Your task to perform on an android device: Open sound settings Image 0: 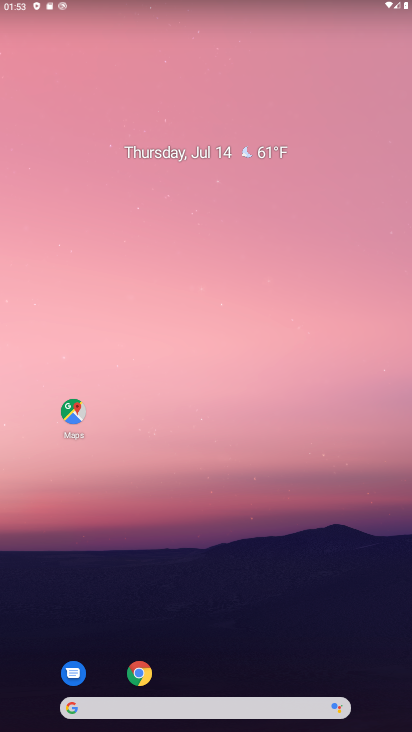
Step 0: drag from (286, 670) to (237, 65)
Your task to perform on an android device: Open sound settings Image 1: 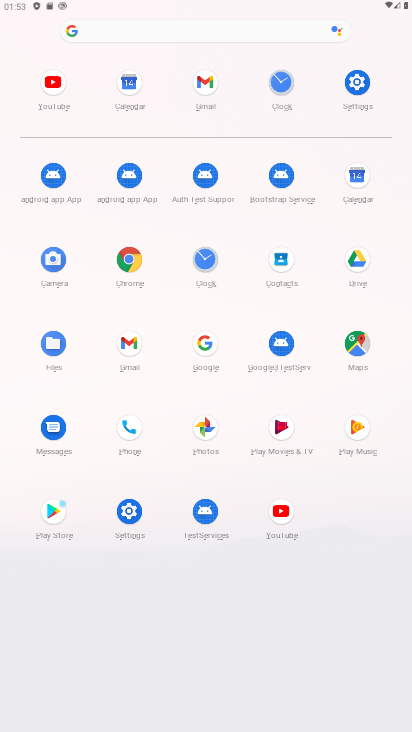
Step 1: click (346, 102)
Your task to perform on an android device: Open sound settings Image 2: 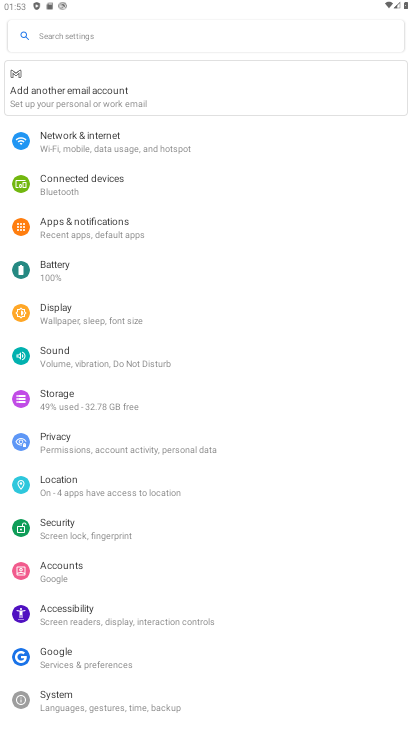
Step 2: click (114, 342)
Your task to perform on an android device: Open sound settings Image 3: 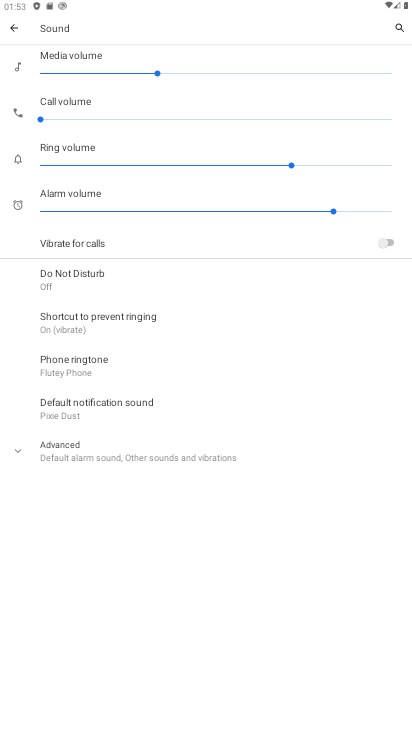
Step 3: task complete